Your task to perform on an android device: check storage Image 0: 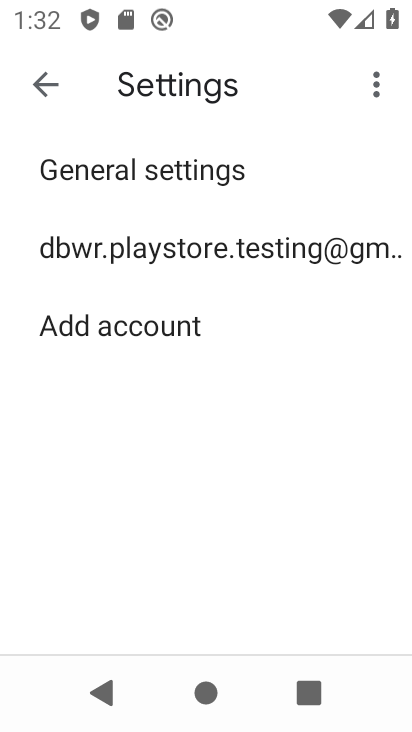
Step 0: press home button
Your task to perform on an android device: check storage Image 1: 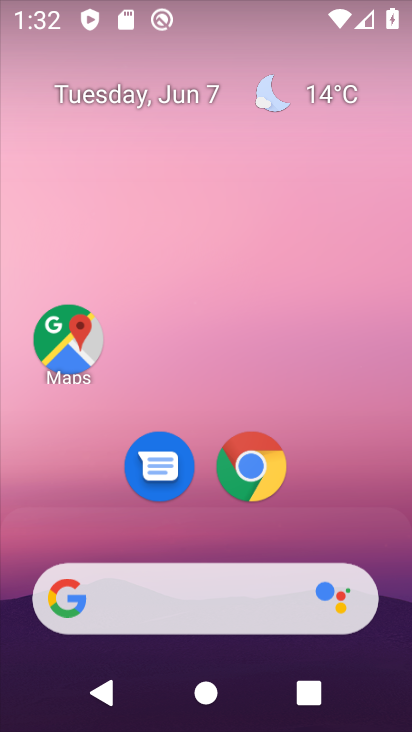
Step 1: drag from (161, 722) to (184, 61)
Your task to perform on an android device: check storage Image 2: 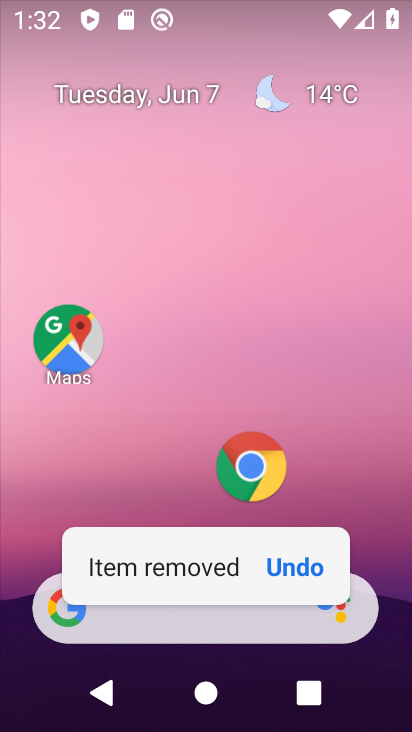
Step 2: press home button
Your task to perform on an android device: check storage Image 3: 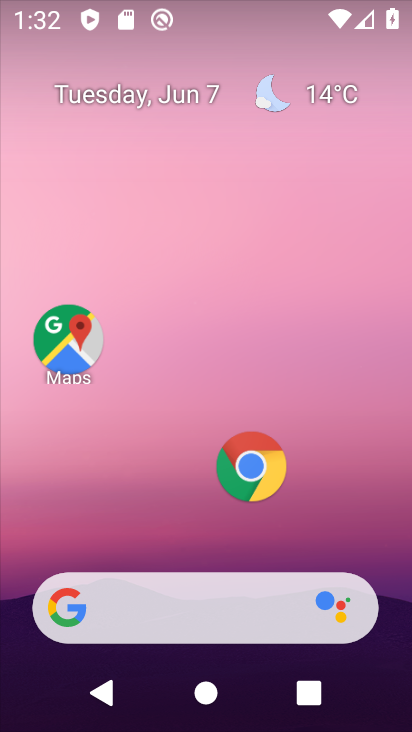
Step 3: drag from (166, 728) to (239, 64)
Your task to perform on an android device: check storage Image 4: 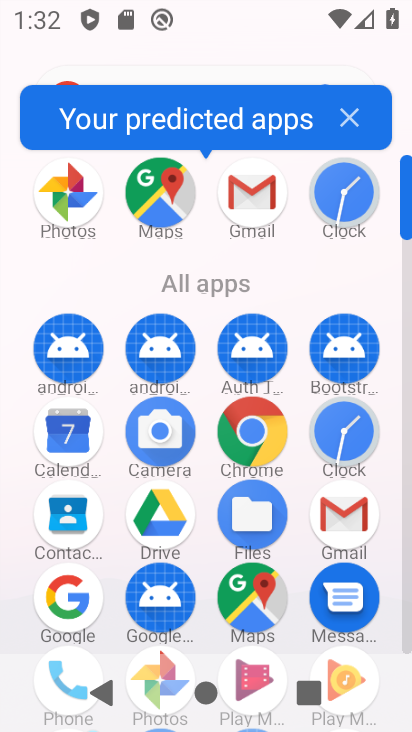
Step 4: drag from (203, 527) to (253, 169)
Your task to perform on an android device: check storage Image 5: 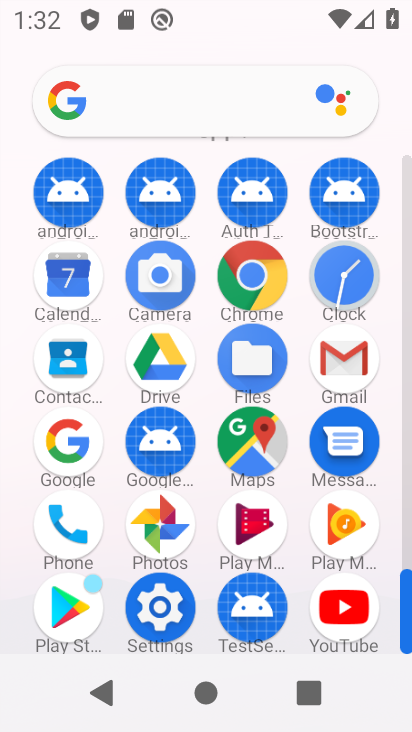
Step 5: click (161, 612)
Your task to perform on an android device: check storage Image 6: 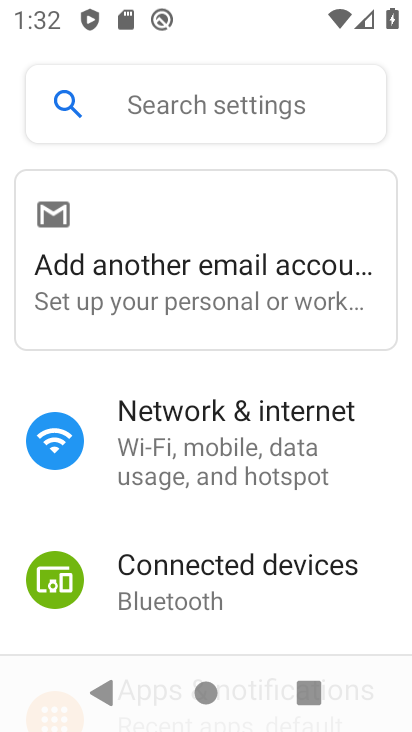
Step 6: drag from (273, 588) to (248, 208)
Your task to perform on an android device: check storage Image 7: 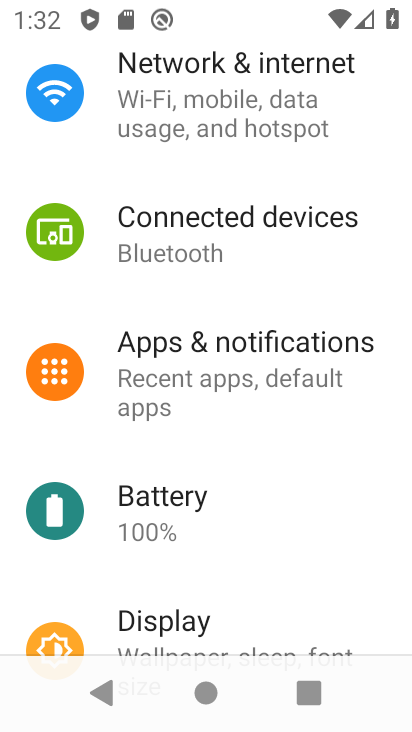
Step 7: drag from (217, 584) to (226, 248)
Your task to perform on an android device: check storage Image 8: 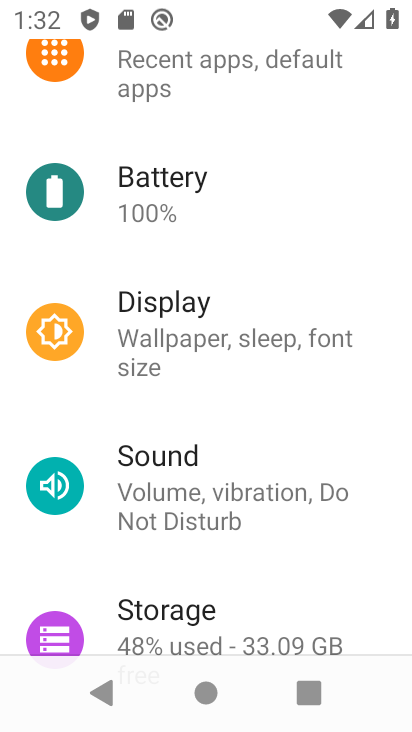
Step 8: click (185, 637)
Your task to perform on an android device: check storage Image 9: 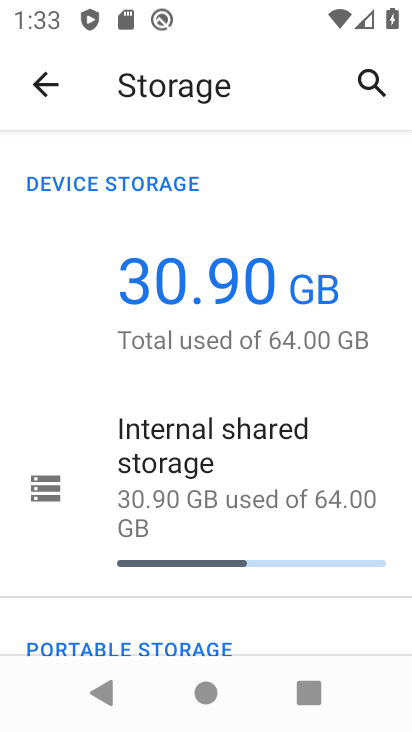
Step 9: task complete